Your task to perform on an android device: Open Youtube and go to the subscriptions tab Image 0: 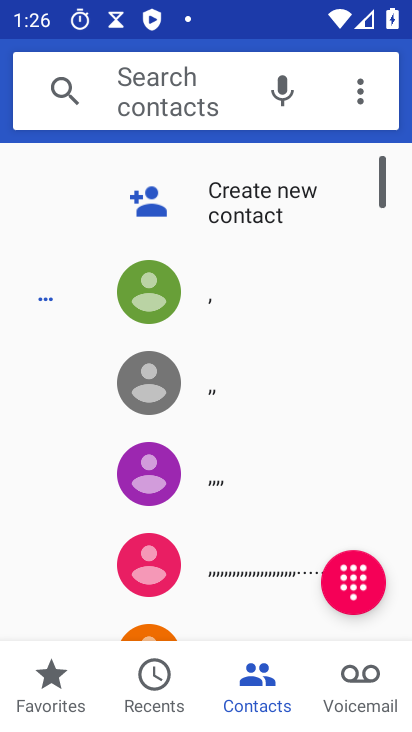
Step 0: press home button
Your task to perform on an android device: Open Youtube and go to the subscriptions tab Image 1: 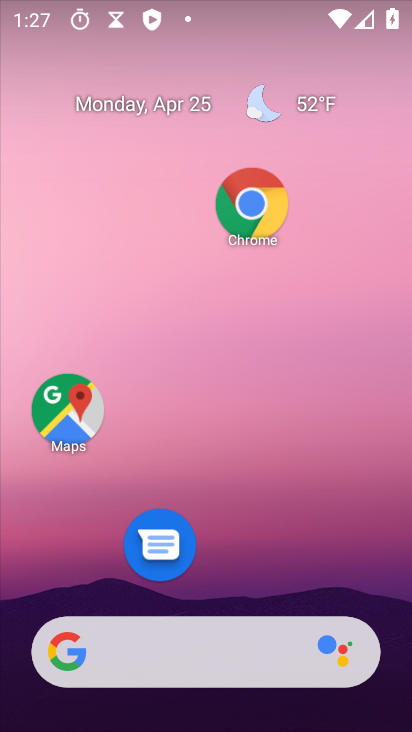
Step 1: drag from (194, 670) to (365, 219)
Your task to perform on an android device: Open Youtube and go to the subscriptions tab Image 2: 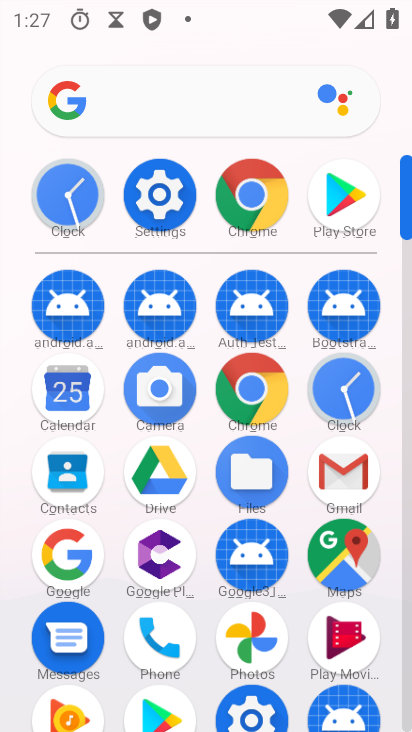
Step 2: drag from (207, 527) to (253, 344)
Your task to perform on an android device: Open Youtube and go to the subscriptions tab Image 3: 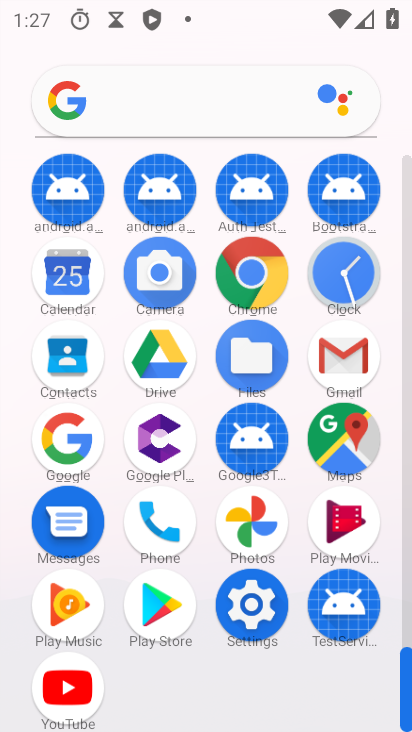
Step 3: click (69, 681)
Your task to perform on an android device: Open Youtube and go to the subscriptions tab Image 4: 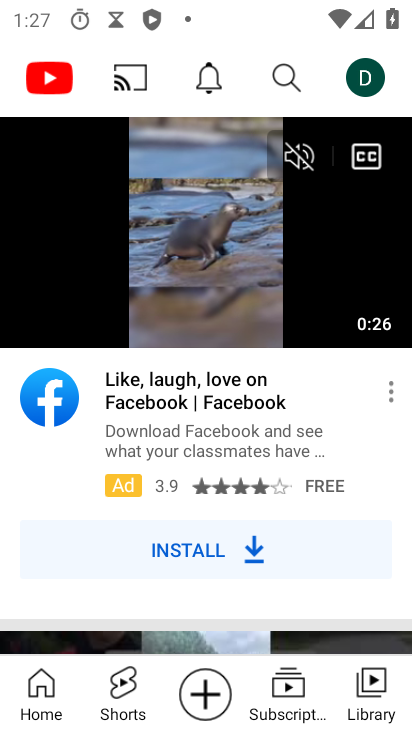
Step 4: click (297, 712)
Your task to perform on an android device: Open Youtube and go to the subscriptions tab Image 5: 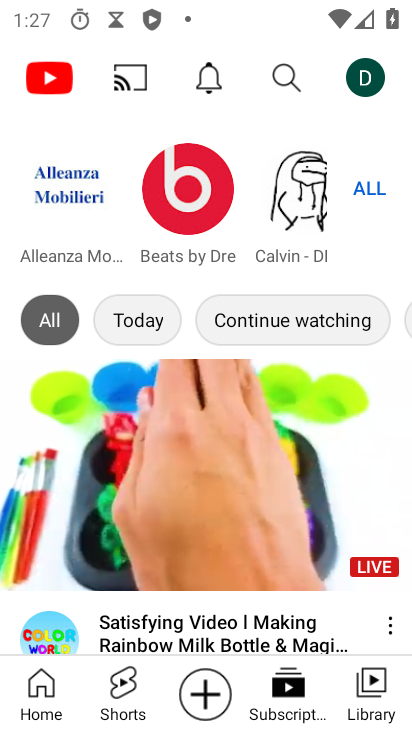
Step 5: task complete